Your task to perform on an android device: Open the map Image 0: 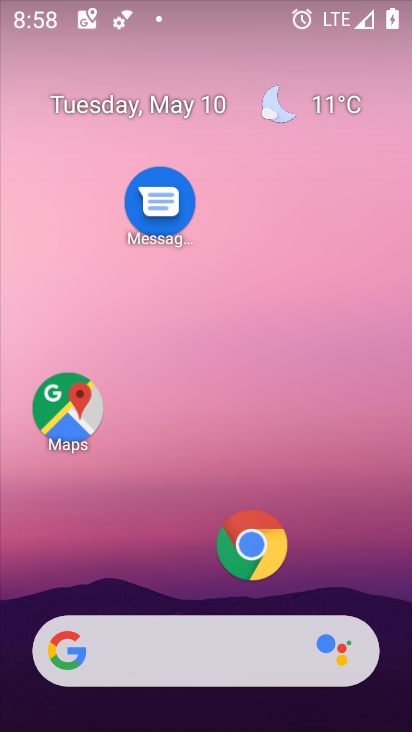
Step 0: press home button
Your task to perform on an android device: Open the map Image 1: 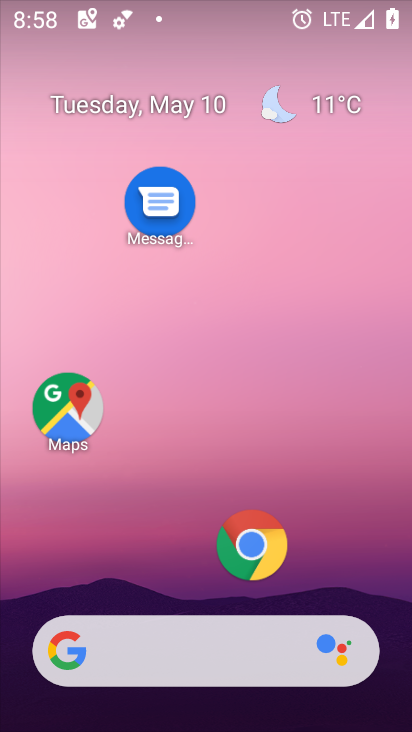
Step 1: drag from (176, 3) to (138, 628)
Your task to perform on an android device: Open the map Image 2: 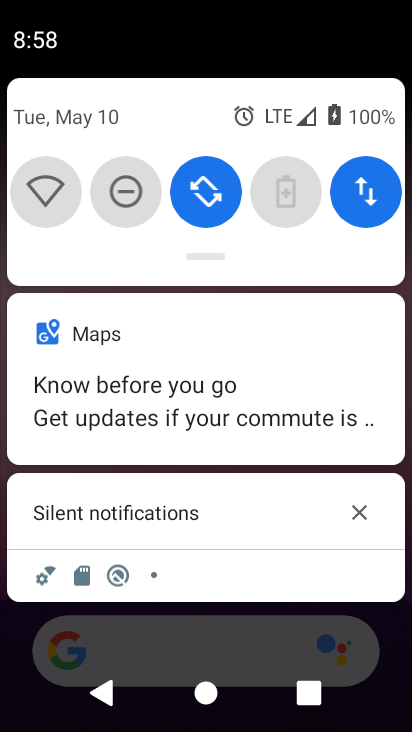
Step 2: drag from (231, 660) to (248, 287)
Your task to perform on an android device: Open the map Image 3: 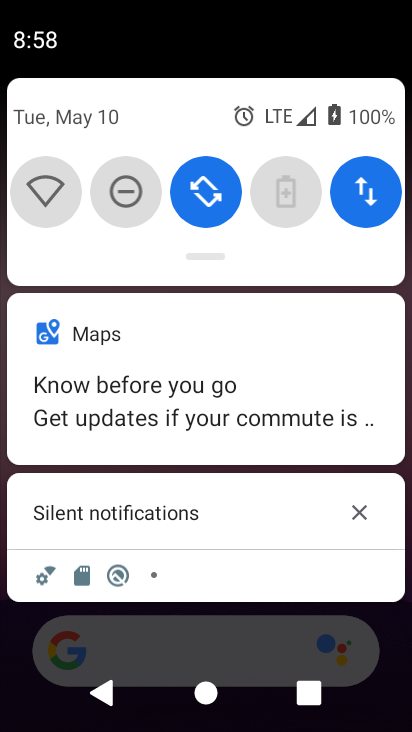
Step 3: click (96, 688)
Your task to perform on an android device: Open the map Image 4: 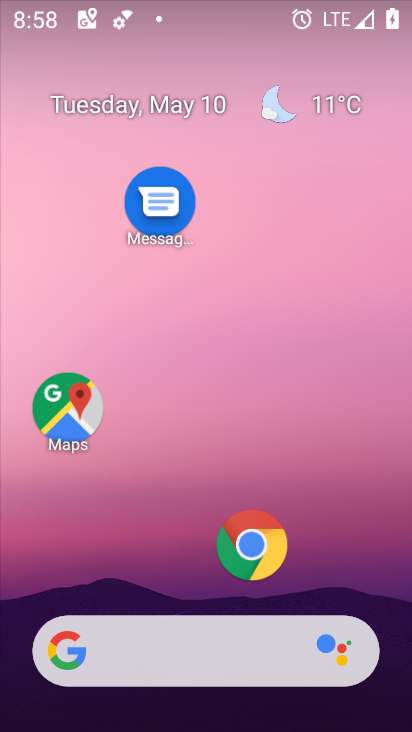
Step 4: click (66, 404)
Your task to perform on an android device: Open the map Image 5: 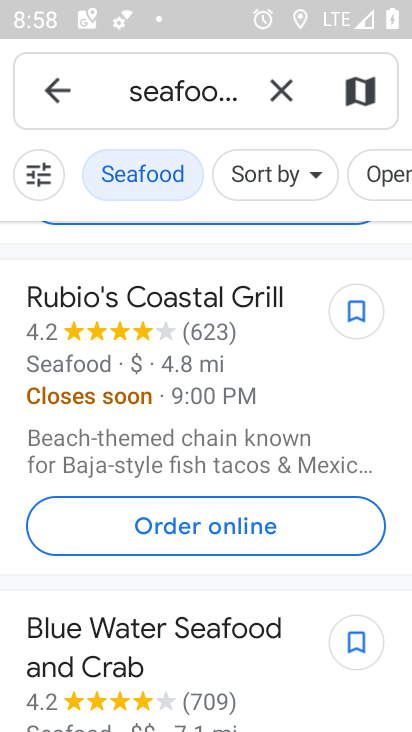
Step 5: click (65, 90)
Your task to perform on an android device: Open the map Image 6: 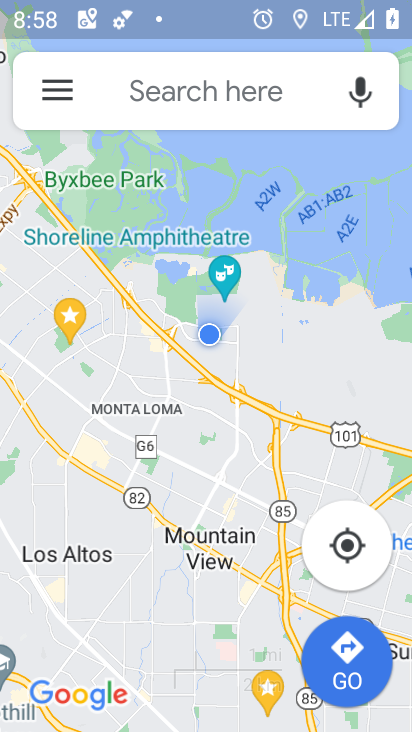
Step 6: task complete